Your task to perform on an android device: change the upload size in google photos Image 0: 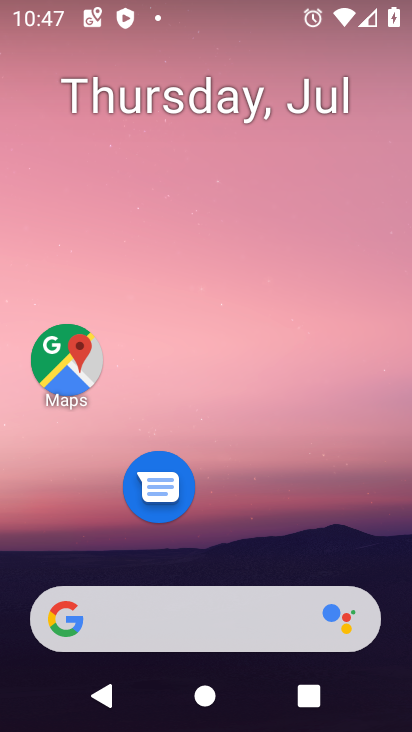
Step 0: drag from (294, 442) to (321, 60)
Your task to perform on an android device: change the upload size in google photos Image 1: 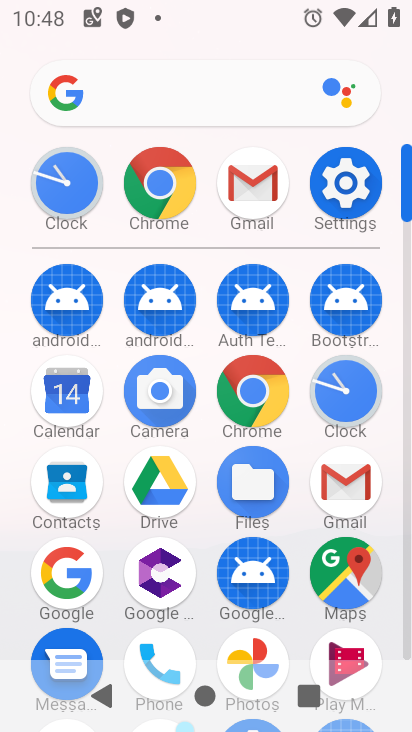
Step 1: drag from (235, 513) to (300, 194)
Your task to perform on an android device: change the upload size in google photos Image 2: 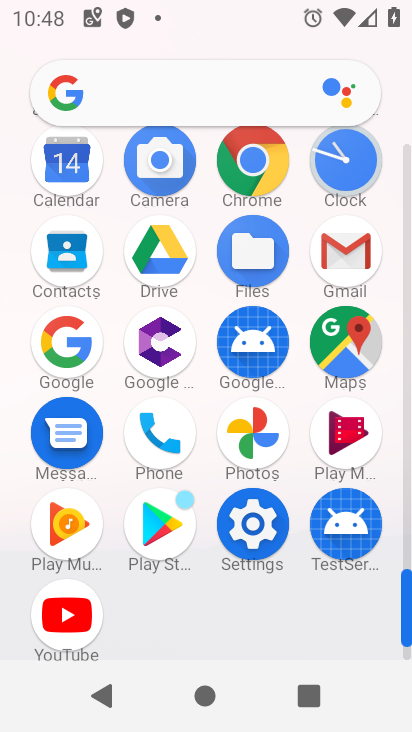
Step 2: click (262, 438)
Your task to perform on an android device: change the upload size in google photos Image 3: 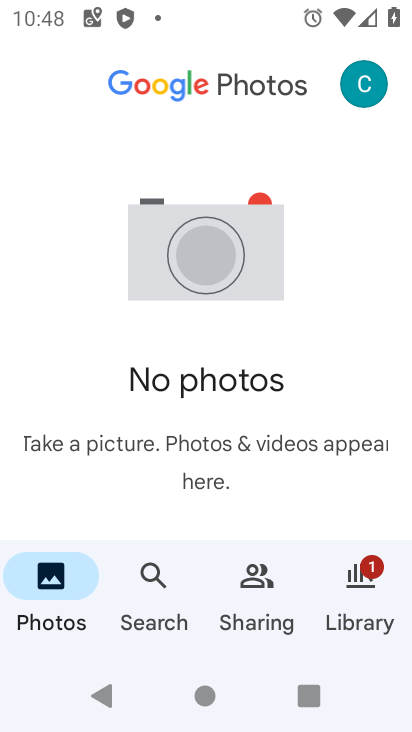
Step 3: click (370, 91)
Your task to perform on an android device: change the upload size in google photos Image 4: 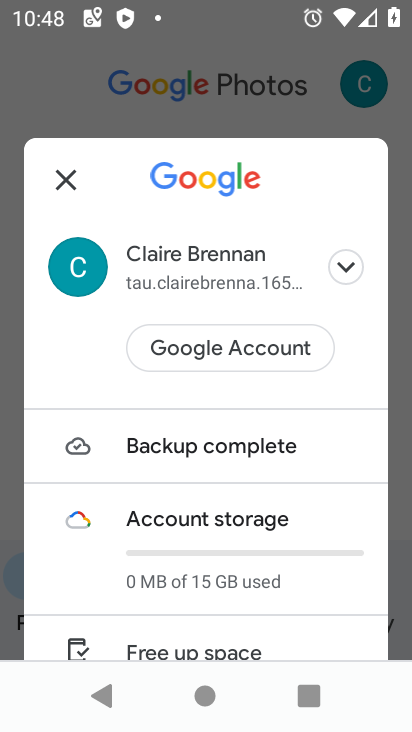
Step 4: drag from (307, 543) to (361, 146)
Your task to perform on an android device: change the upload size in google photos Image 5: 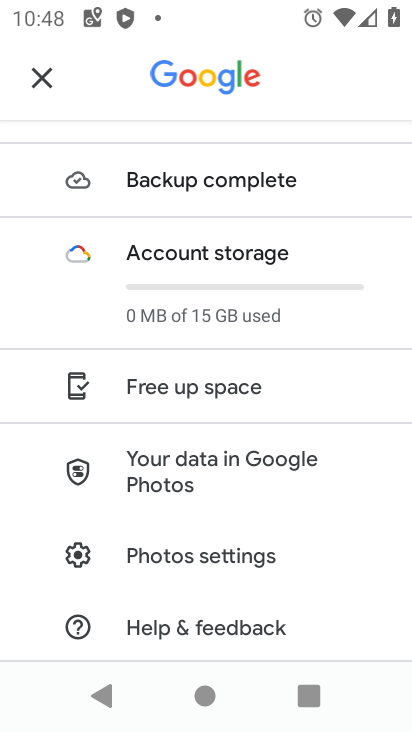
Step 5: drag from (269, 558) to (301, 228)
Your task to perform on an android device: change the upload size in google photos Image 6: 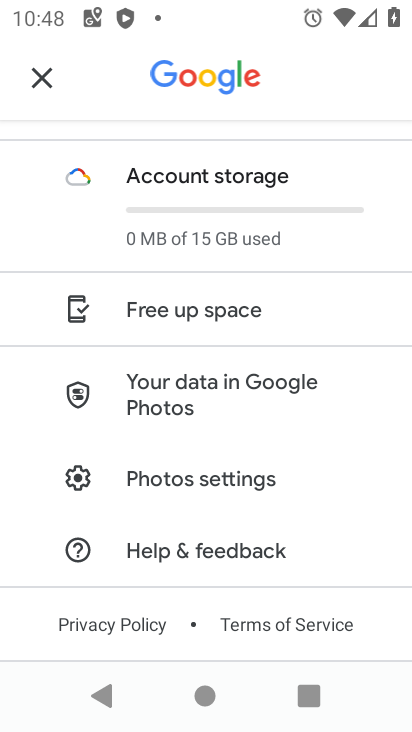
Step 6: click (205, 481)
Your task to perform on an android device: change the upload size in google photos Image 7: 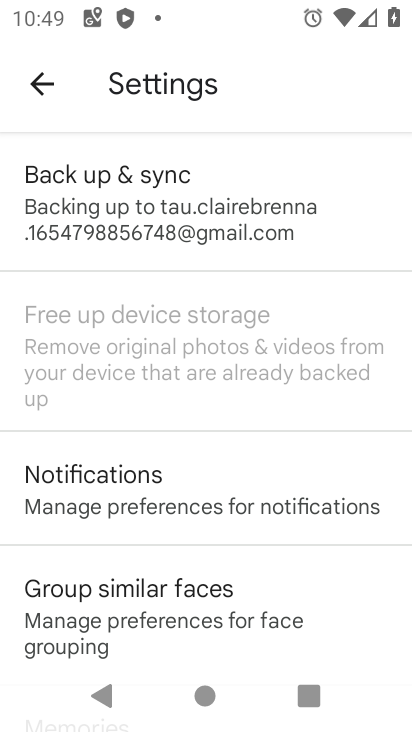
Step 7: click (274, 229)
Your task to perform on an android device: change the upload size in google photos Image 8: 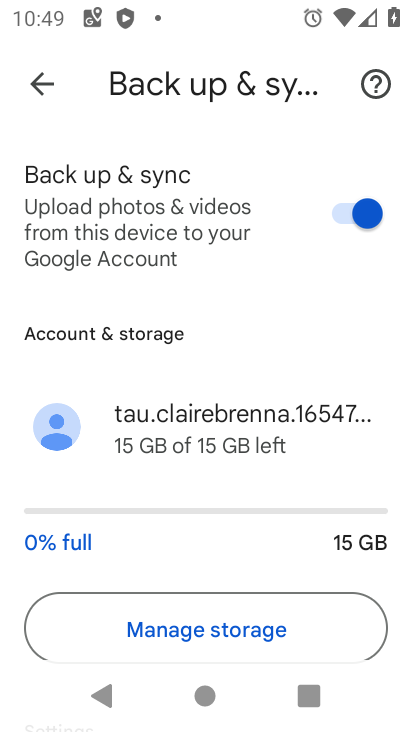
Step 8: drag from (234, 421) to (275, 272)
Your task to perform on an android device: change the upload size in google photos Image 9: 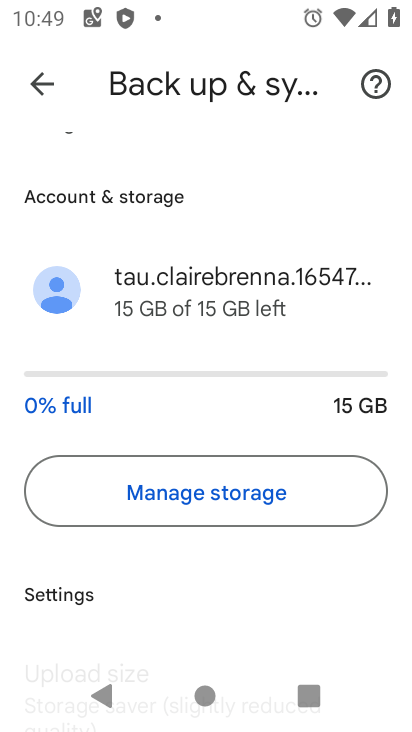
Step 9: drag from (252, 558) to (284, 255)
Your task to perform on an android device: change the upload size in google photos Image 10: 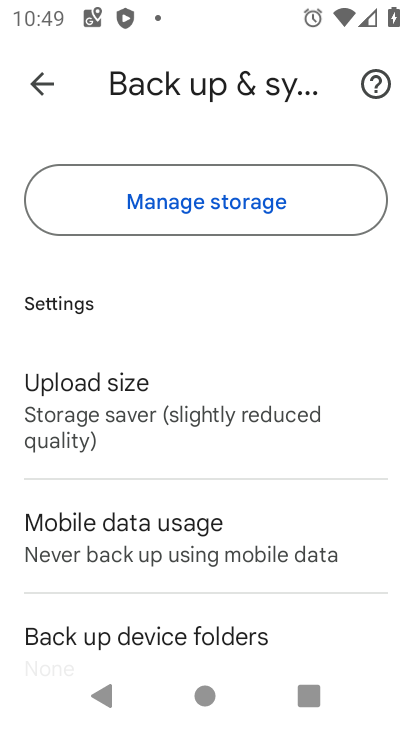
Step 10: click (164, 419)
Your task to perform on an android device: change the upload size in google photos Image 11: 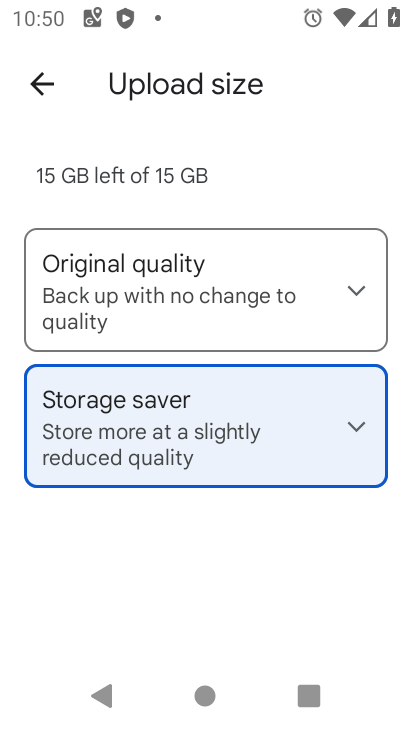
Step 11: click (209, 293)
Your task to perform on an android device: change the upload size in google photos Image 12: 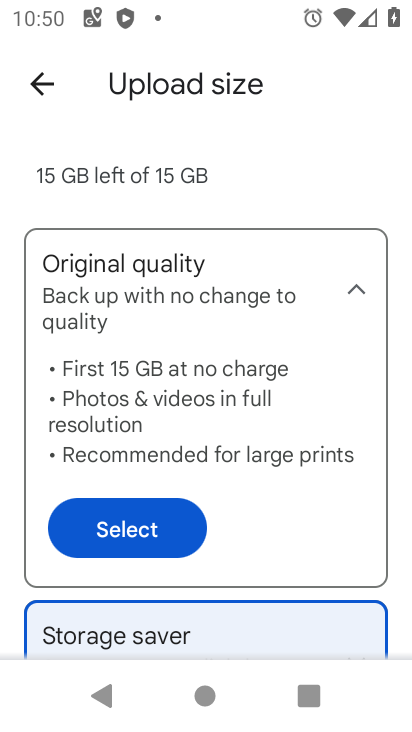
Step 12: click (169, 536)
Your task to perform on an android device: change the upload size in google photos Image 13: 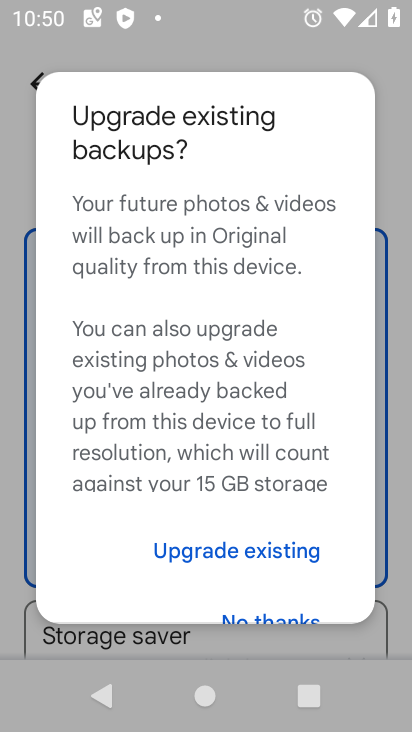
Step 13: task complete